Your task to perform on an android device: Turn on the flashlight Image 0: 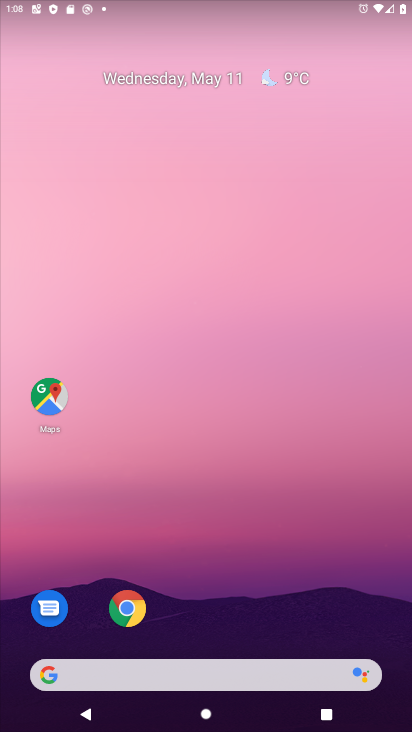
Step 0: drag from (287, 561) to (244, 150)
Your task to perform on an android device: Turn on the flashlight Image 1: 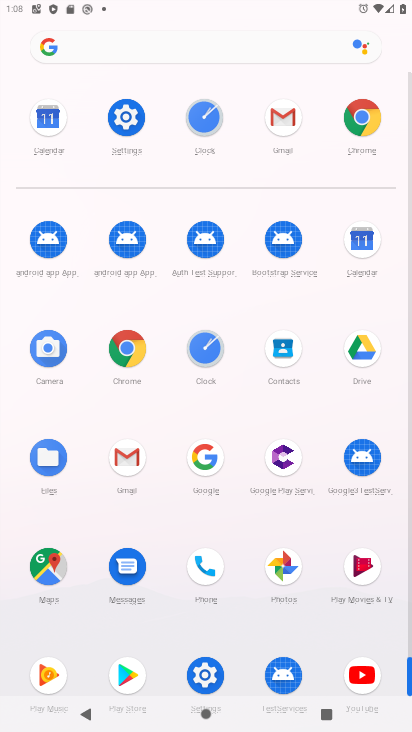
Step 1: task complete